Your task to perform on an android device: When is my next appointment? Image 0: 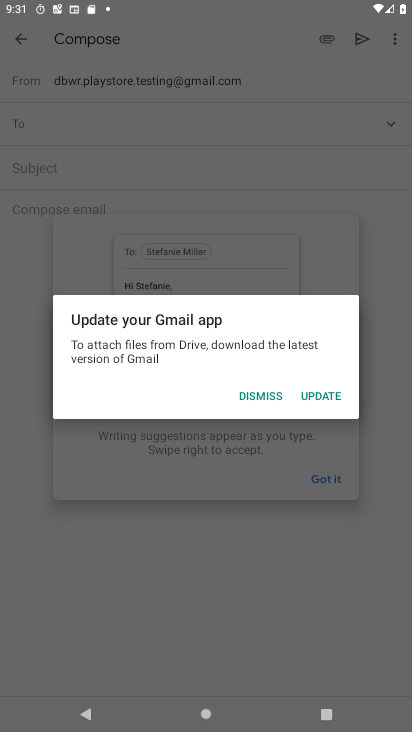
Step 0: press home button
Your task to perform on an android device: When is my next appointment? Image 1: 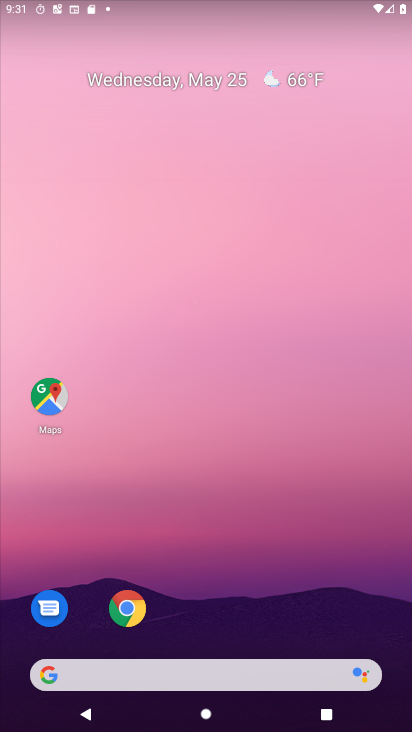
Step 1: drag from (224, 675) to (230, 223)
Your task to perform on an android device: When is my next appointment? Image 2: 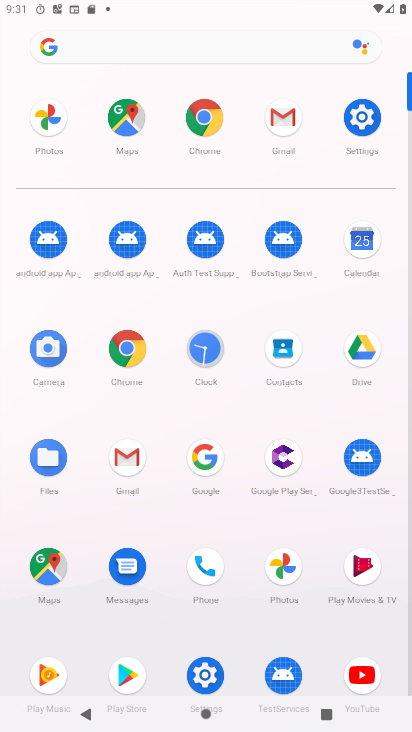
Step 2: click (364, 248)
Your task to perform on an android device: When is my next appointment? Image 3: 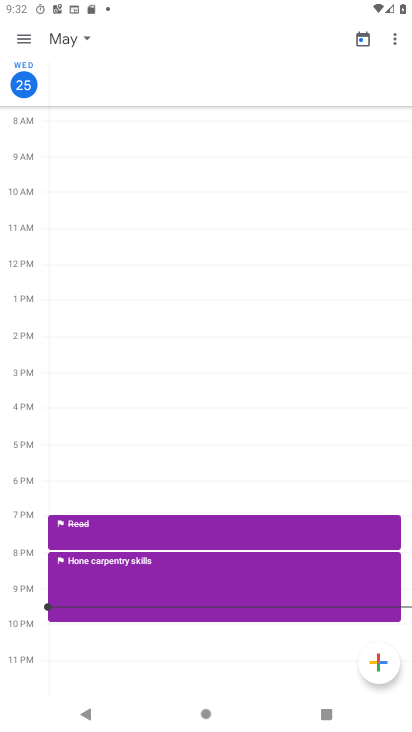
Step 3: click (67, 33)
Your task to perform on an android device: When is my next appointment? Image 4: 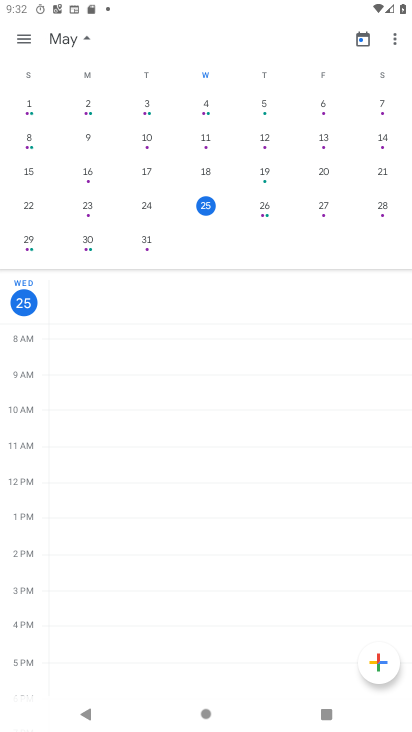
Step 4: click (267, 201)
Your task to perform on an android device: When is my next appointment? Image 5: 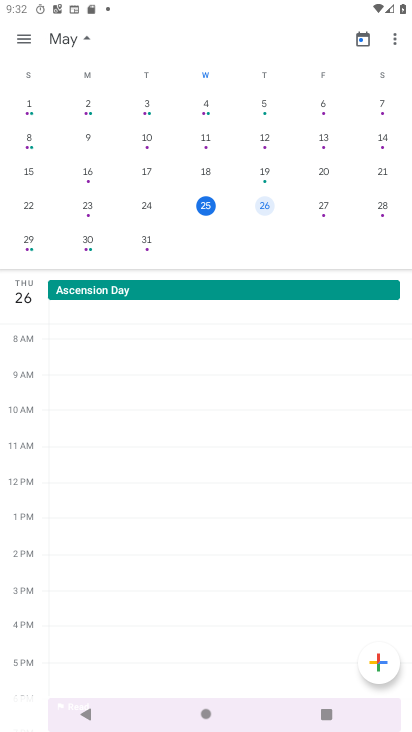
Step 5: click (86, 39)
Your task to perform on an android device: When is my next appointment? Image 6: 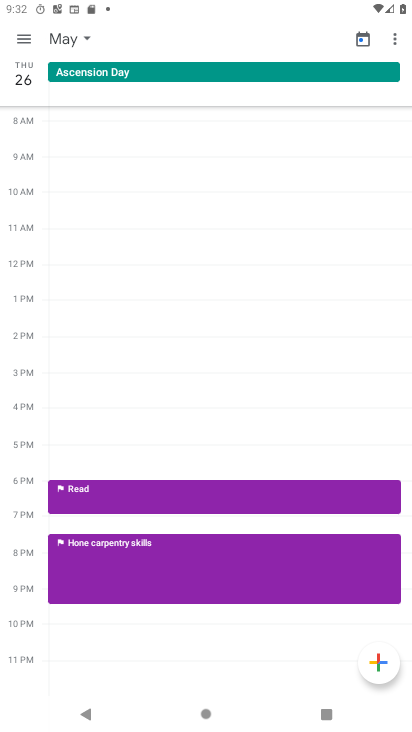
Step 6: task complete